Your task to perform on an android device: Open calendar and show me the third week of next month Image 0: 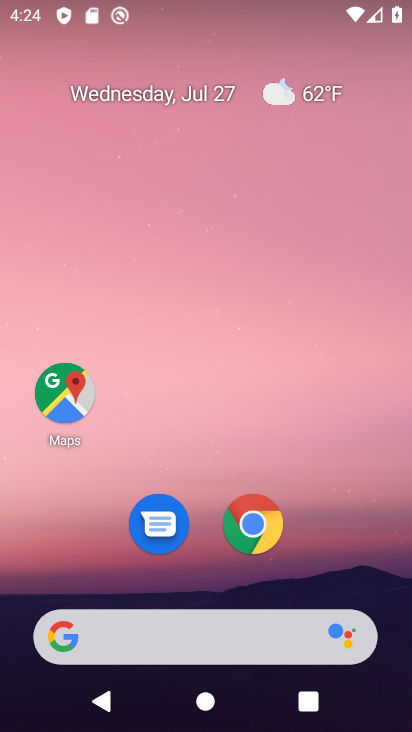
Step 0: drag from (324, 533) to (392, 0)
Your task to perform on an android device: Open calendar and show me the third week of next month Image 1: 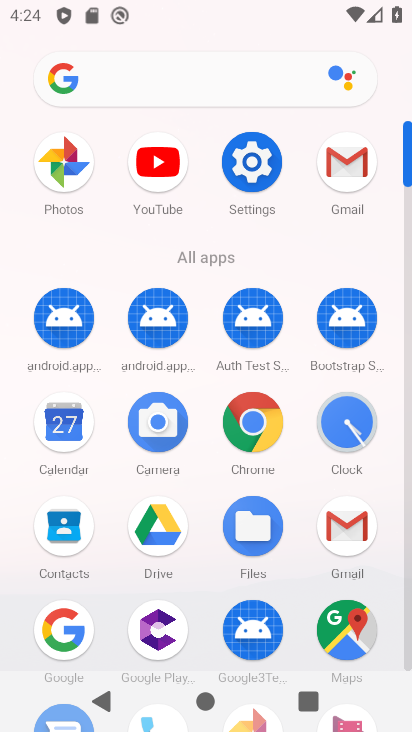
Step 1: click (63, 431)
Your task to perform on an android device: Open calendar and show me the third week of next month Image 2: 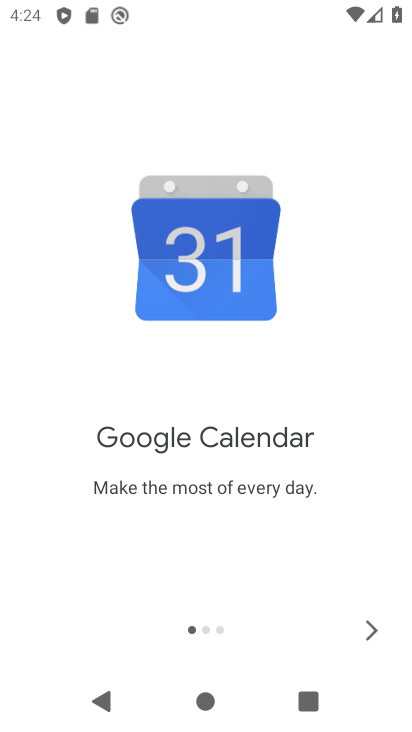
Step 2: click (366, 626)
Your task to perform on an android device: Open calendar and show me the third week of next month Image 3: 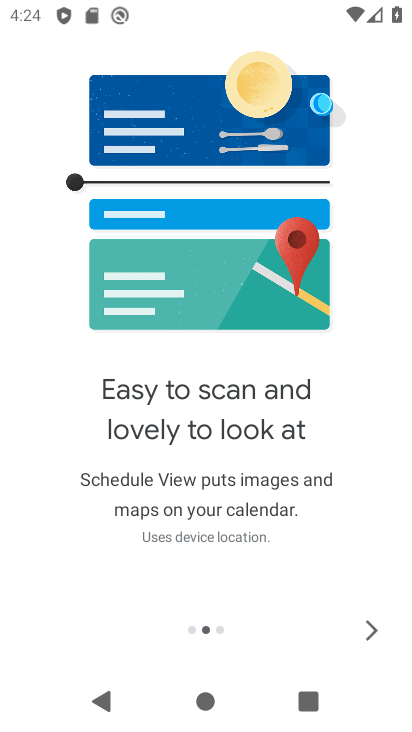
Step 3: click (366, 625)
Your task to perform on an android device: Open calendar and show me the third week of next month Image 4: 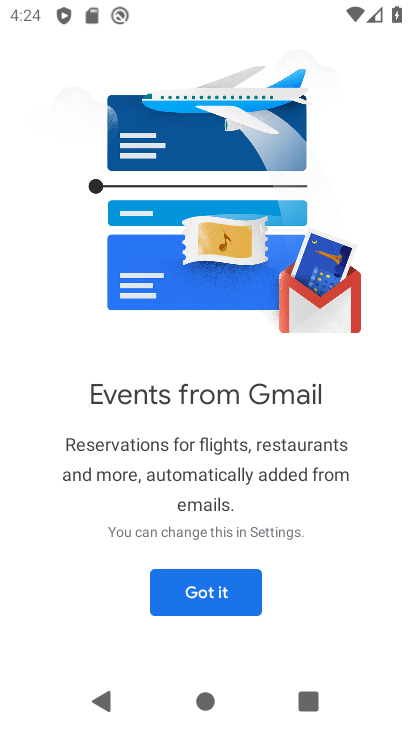
Step 4: click (245, 587)
Your task to perform on an android device: Open calendar and show me the third week of next month Image 5: 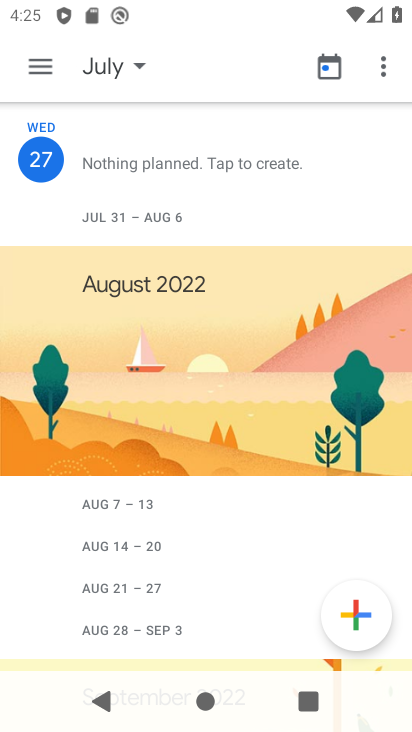
Step 5: click (47, 65)
Your task to perform on an android device: Open calendar and show me the third week of next month Image 6: 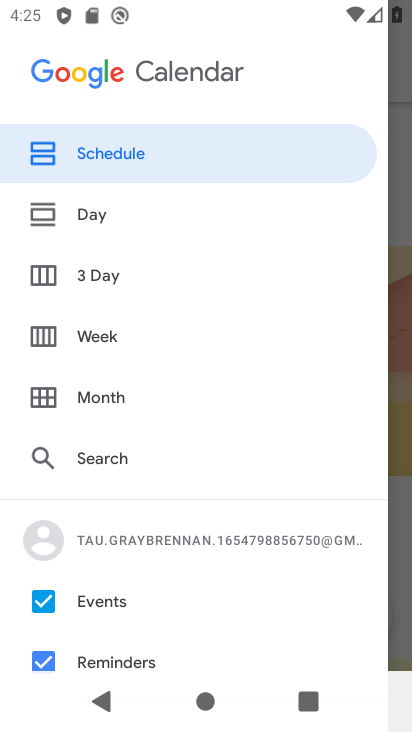
Step 6: click (42, 333)
Your task to perform on an android device: Open calendar and show me the third week of next month Image 7: 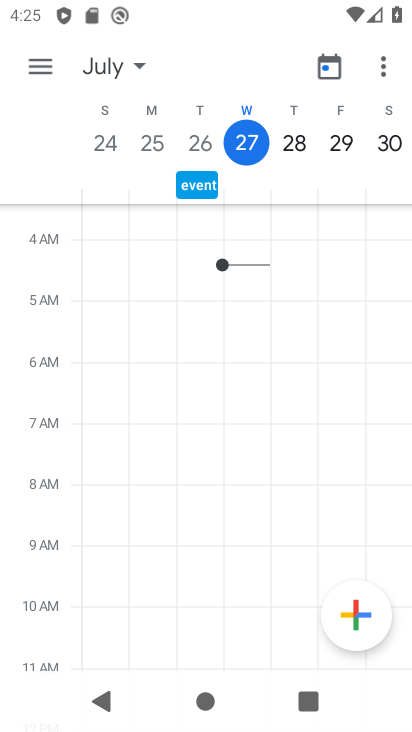
Step 7: task complete